Your task to perform on an android device: turn off notifications in google photos Image 0: 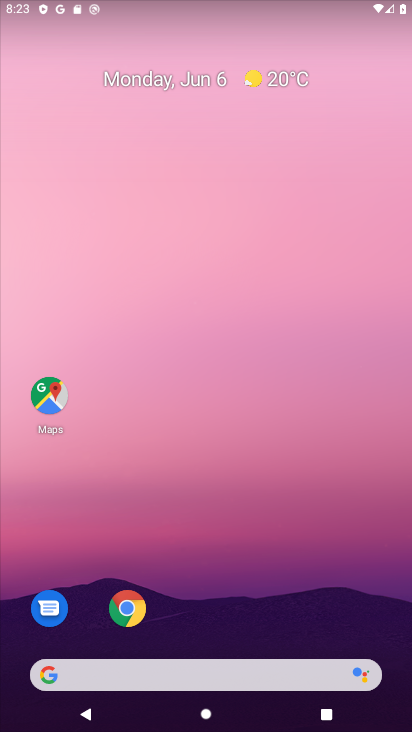
Step 0: drag from (269, 609) to (256, 119)
Your task to perform on an android device: turn off notifications in google photos Image 1: 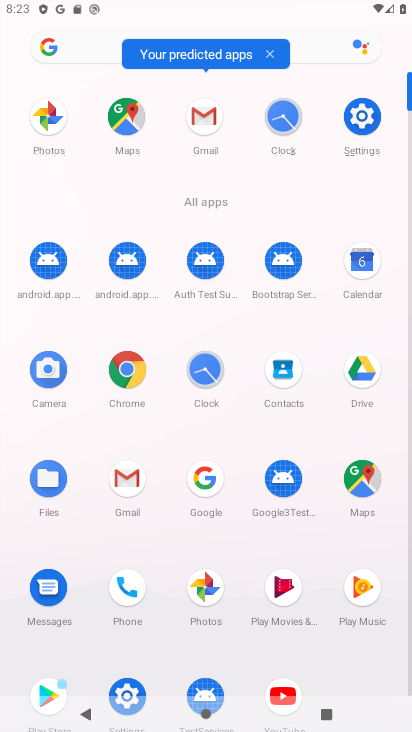
Step 1: task complete